Your task to perform on an android device: When is my next meeting? Image 0: 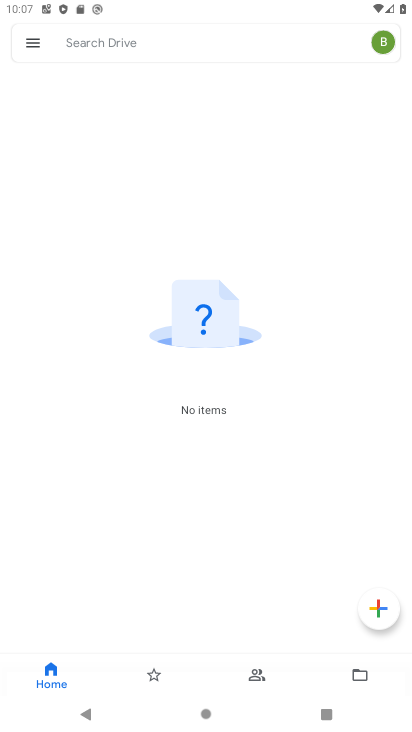
Step 0: press home button
Your task to perform on an android device: When is my next meeting? Image 1: 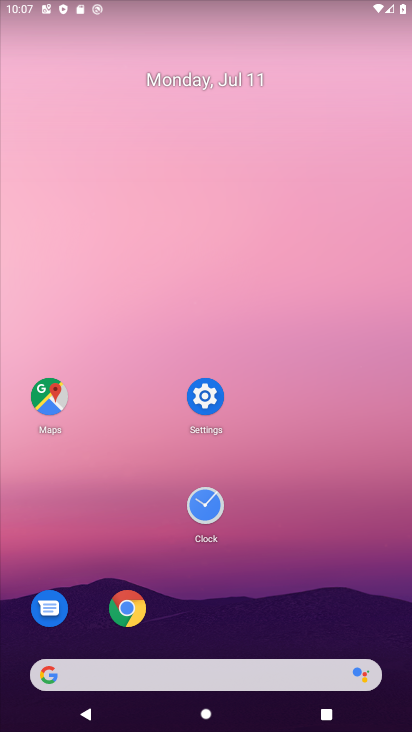
Step 1: drag from (361, 498) to (334, 116)
Your task to perform on an android device: When is my next meeting? Image 2: 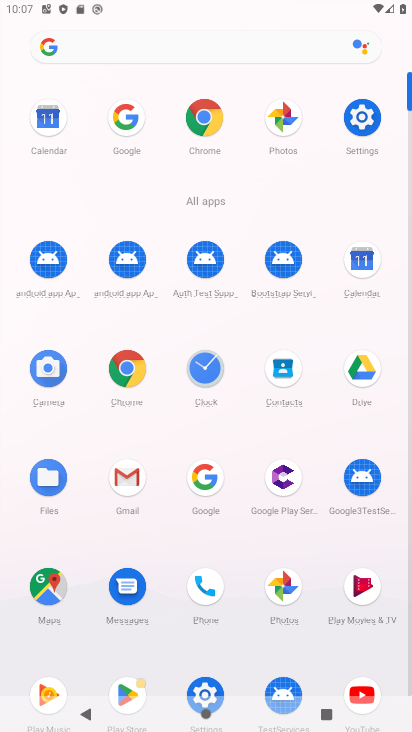
Step 2: click (371, 261)
Your task to perform on an android device: When is my next meeting? Image 3: 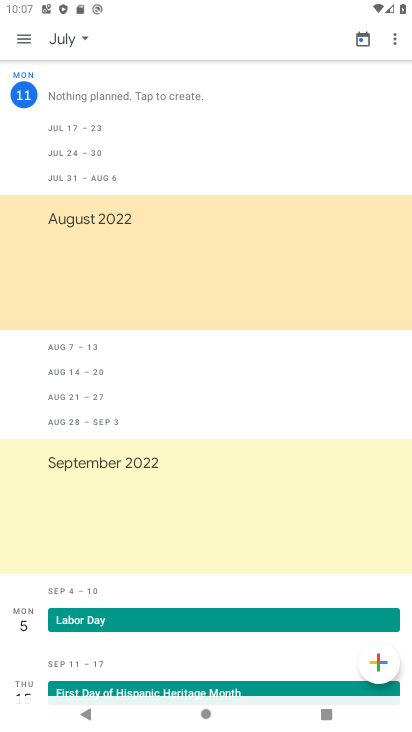
Step 3: click (25, 35)
Your task to perform on an android device: When is my next meeting? Image 4: 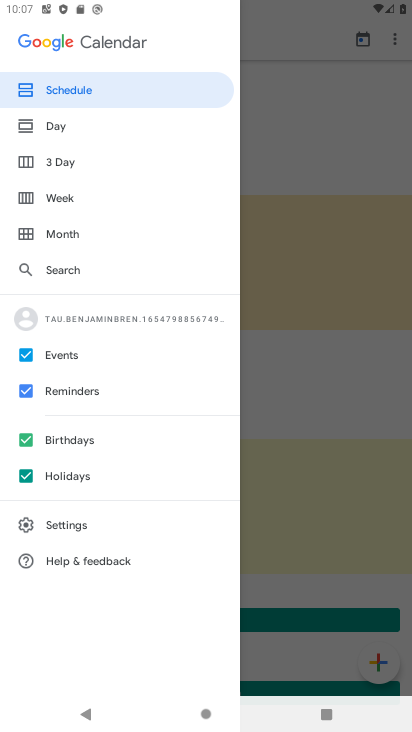
Step 4: click (27, 470)
Your task to perform on an android device: When is my next meeting? Image 5: 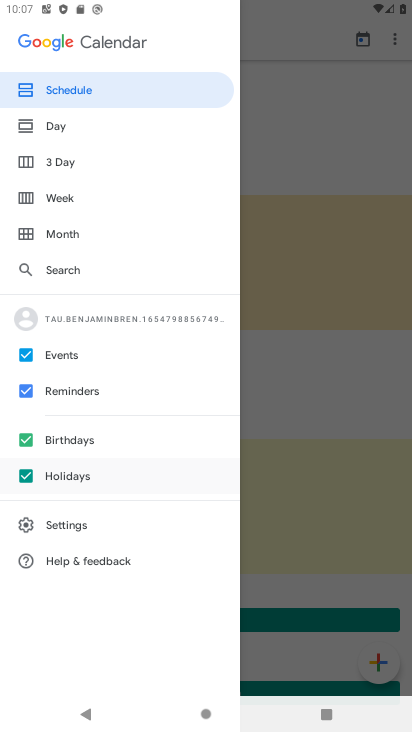
Step 5: click (23, 435)
Your task to perform on an android device: When is my next meeting? Image 6: 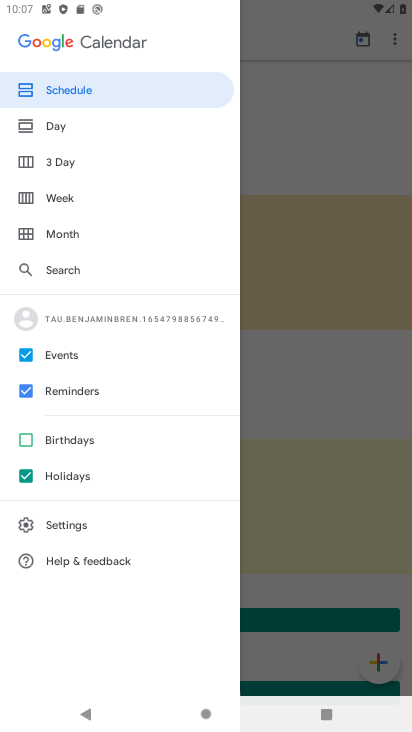
Step 6: click (31, 389)
Your task to perform on an android device: When is my next meeting? Image 7: 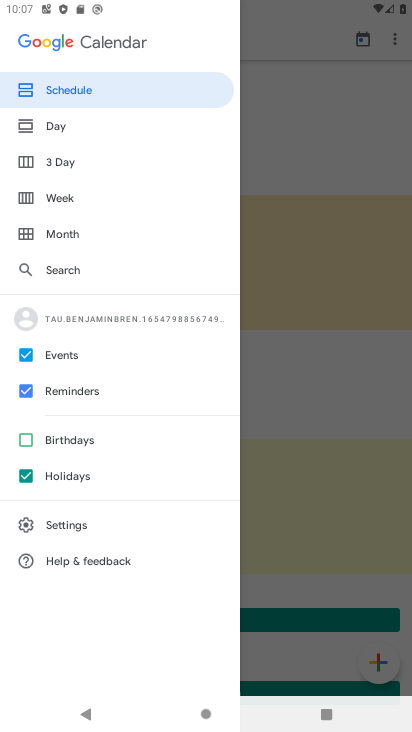
Step 7: click (27, 479)
Your task to perform on an android device: When is my next meeting? Image 8: 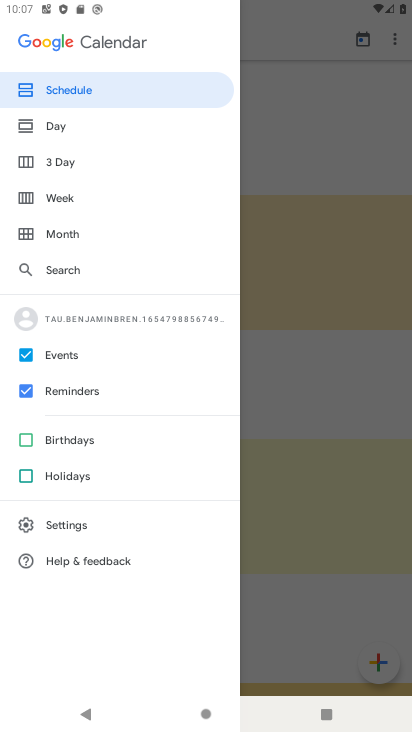
Step 8: click (25, 388)
Your task to perform on an android device: When is my next meeting? Image 9: 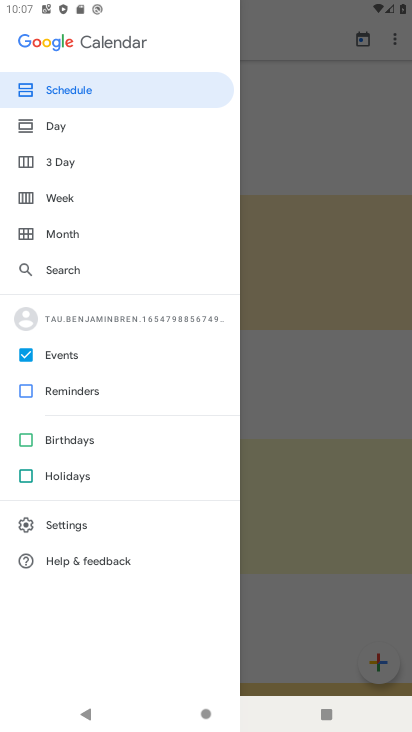
Step 9: click (65, 89)
Your task to perform on an android device: When is my next meeting? Image 10: 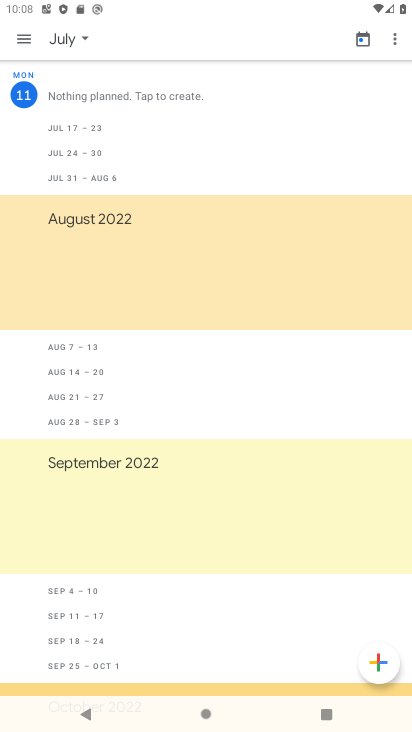
Step 10: task complete